Your task to perform on an android device: delete browsing data in the chrome app Image 0: 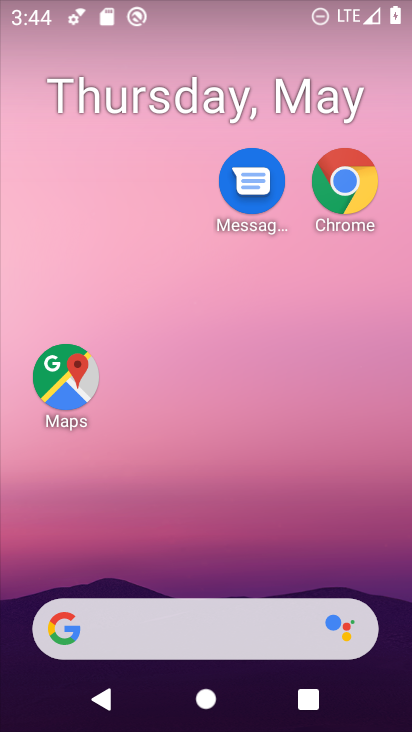
Step 0: drag from (222, 649) to (257, 15)
Your task to perform on an android device: delete browsing data in the chrome app Image 1: 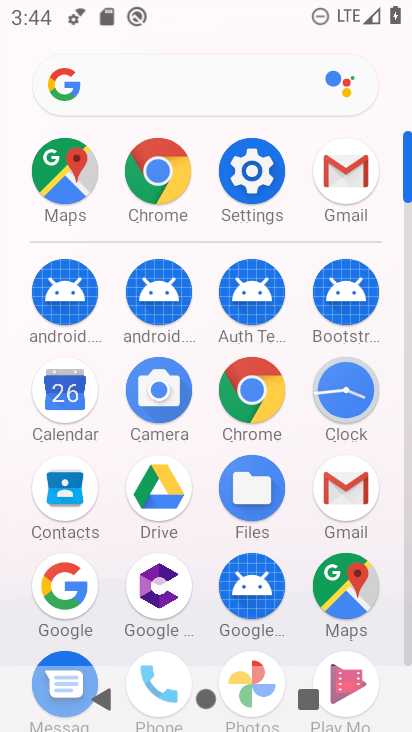
Step 1: click (243, 392)
Your task to perform on an android device: delete browsing data in the chrome app Image 2: 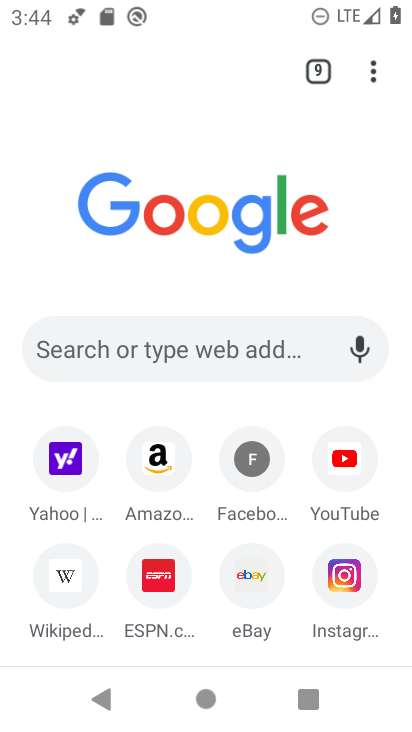
Step 2: click (374, 62)
Your task to perform on an android device: delete browsing data in the chrome app Image 3: 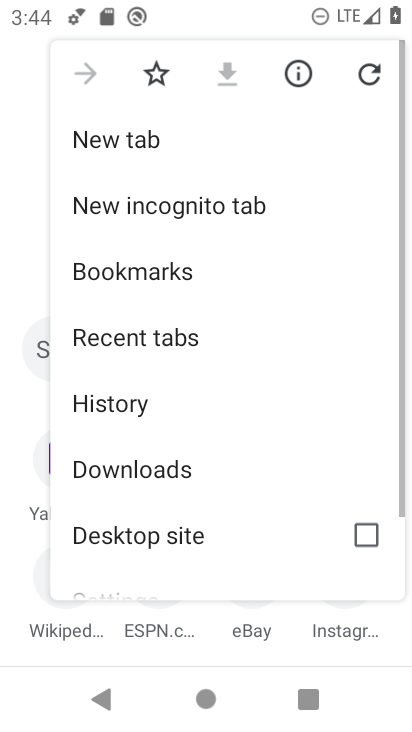
Step 3: drag from (253, 521) to (253, 25)
Your task to perform on an android device: delete browsing data in the chrome app Image 4: 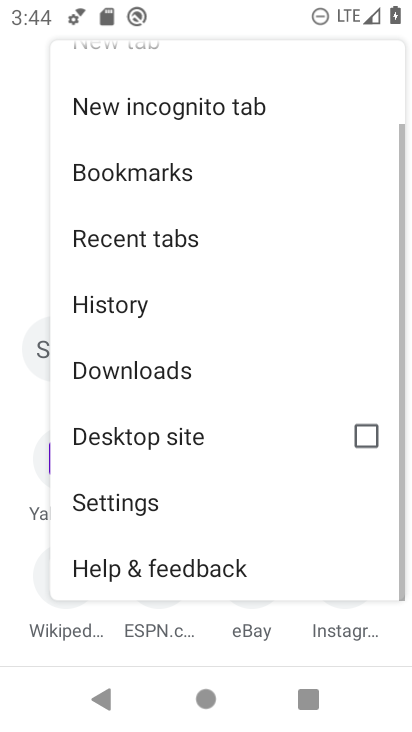
Step 4: click (181, 504)
Your task to perform on an android device: delete browsing data in the chrome app Image 5: 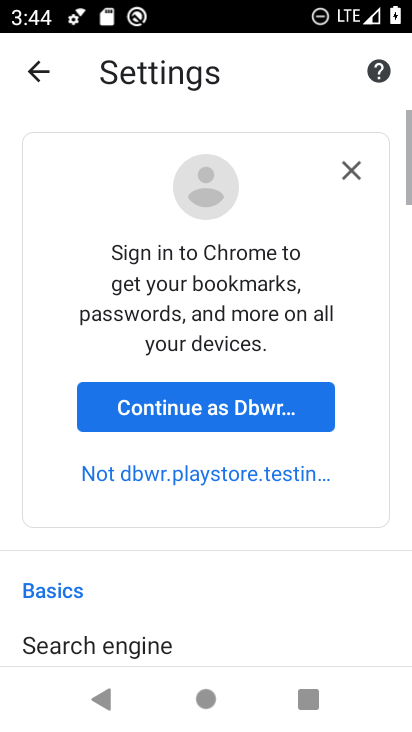
Step 5: drag from (141, 593) to (169, 77)
Your task to perform on an android device: delete browsing data in the chrome app Image 6: 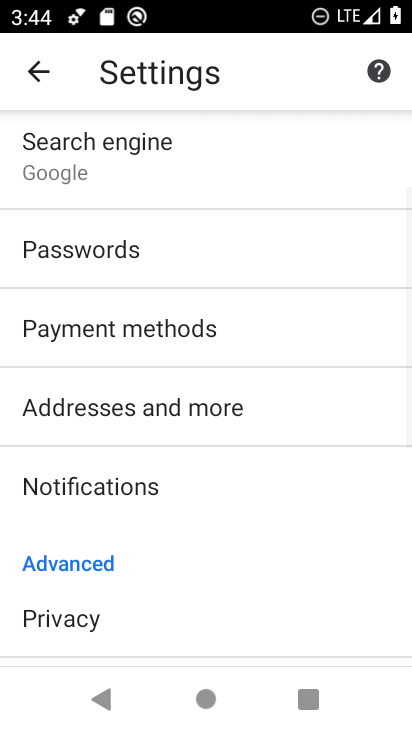
Step 6: drag from (156, 591) to (167, 81)
Your task to perform on an android device: delete browsing data in the chrome app Image 7: 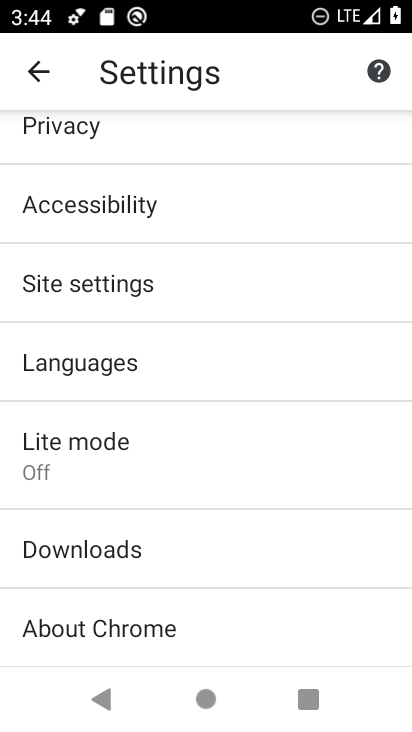
Step 7: click (121, 130)
Your task to perform on an android device: delete browsing data in the chrome app Image 8: 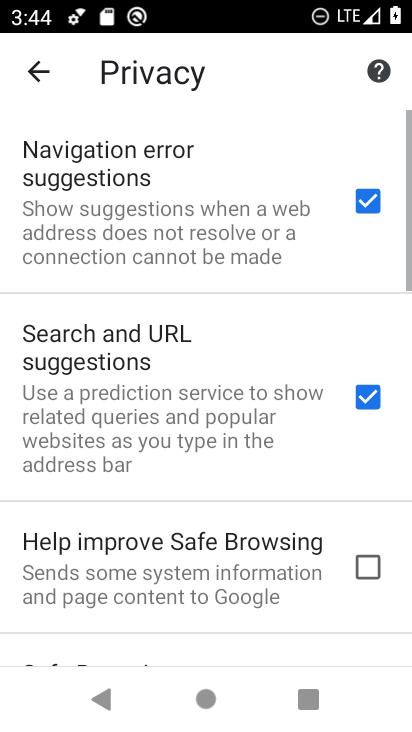
Step 8: drag from (209, 521) to (237, 52)
Your task to perform on an android device: delete browsing data in the chrome app Image 9: 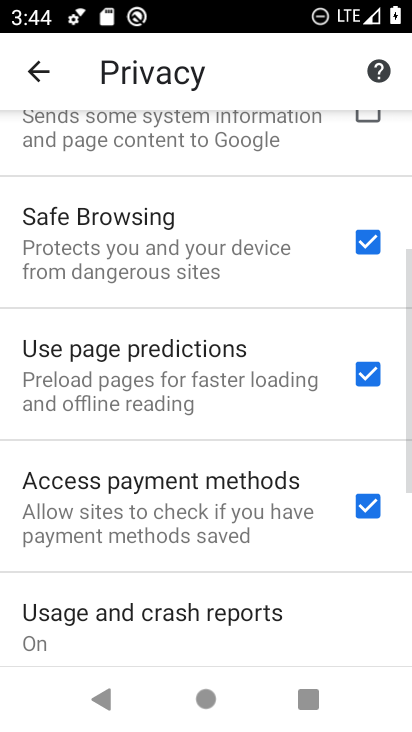
Step 9: drag from (186, 591) to (203, 189)
Your task to perform on an android device: delete browsing data in the chrome app Image 10: 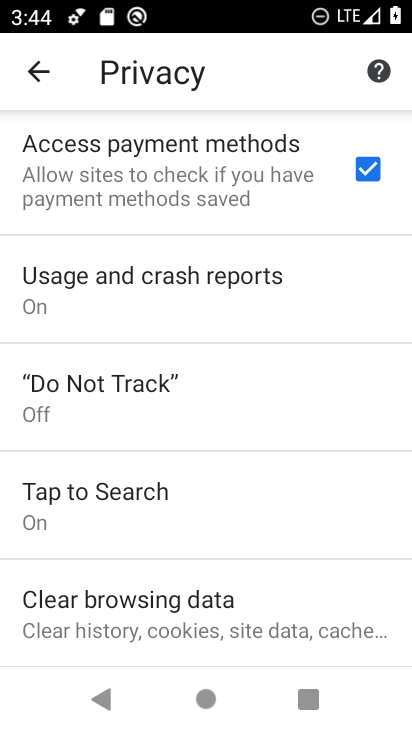
Step 10: click (239, 603)
Your task to perform on an android device: delete browsing data in the chrome app Image 11: 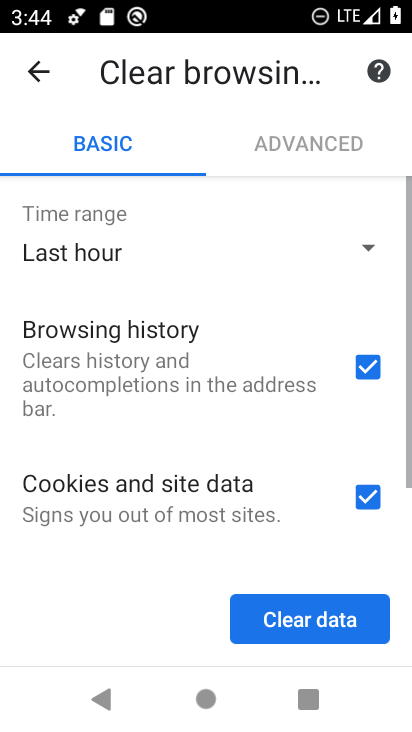
Step 11: click (288, 612)
Your task to perform on an android device: delete browsing data in the chrome app Image 12: 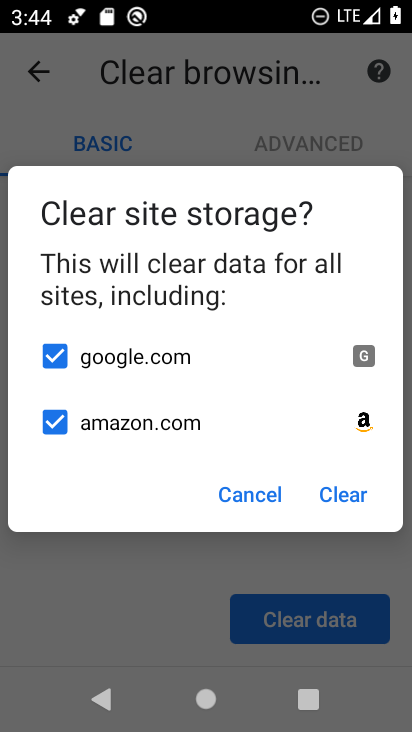
Step 12: click (342, 498)
Your task to perform on an android device: delete browsing data in the chrome app Image 13: 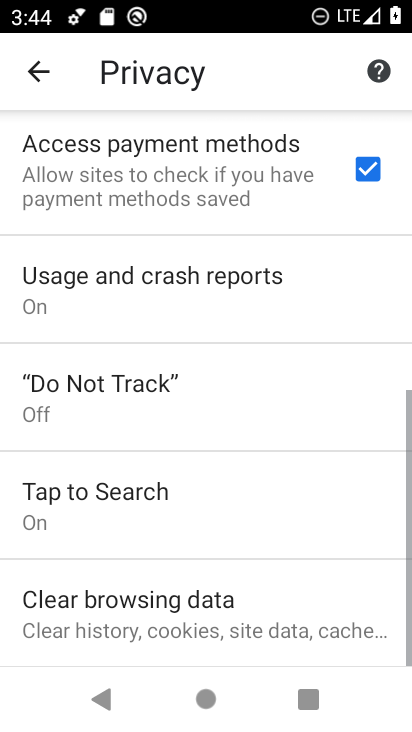
Step 13: task complete